Your task to perform on an android device: read, delete, or share a saved page in the chrome app Image 0: 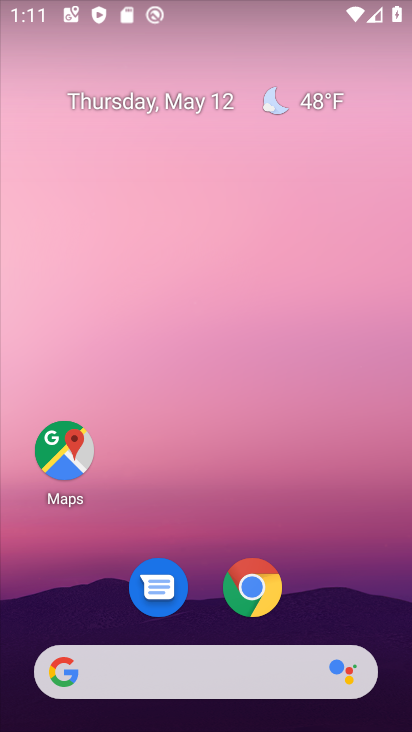
Step 0: drag from (235, 491) to (183, 89)
Your task to perform on an android device: read, delete, or share a saved page in the chrome app Image 1: 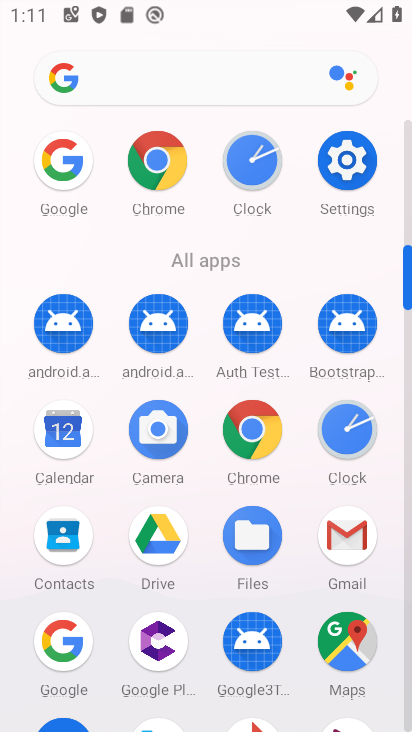
Step 1: click (159, 192)
Your task to perform on an android device: read, delete, or share a saved page in the chrome app Image 2: 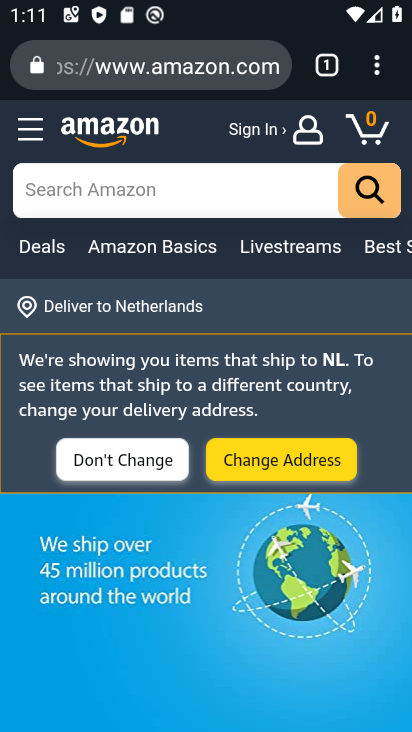
Step 2: click (389, 65)
Your task to perform on an android device: read, delete, or share a saved page in the chrome app Image 3: 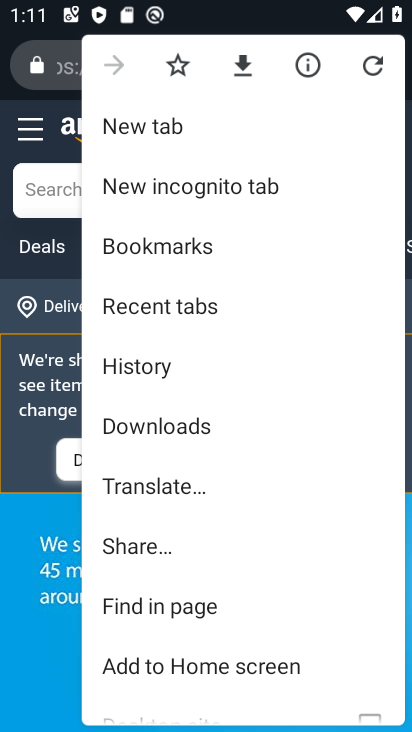
Step 3: click (203, 422)
Your task to perform on an android device: read, delete, or share a saved page in the chrome app Image 4: 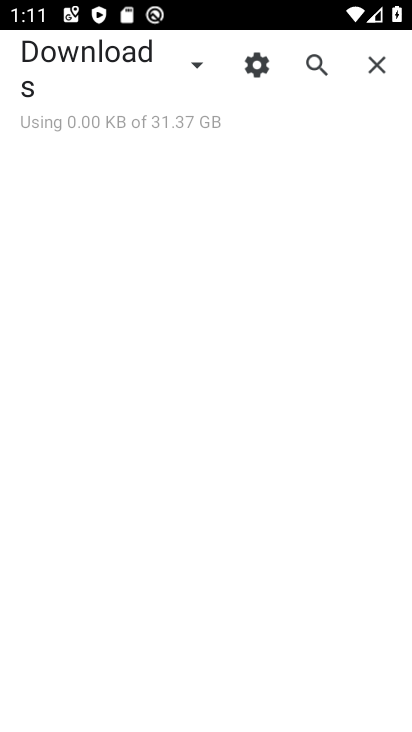
Step 4: click (201, 76)
Your task to perform on an android device: read, delete, or share a saved page in the chrome app Image 5: 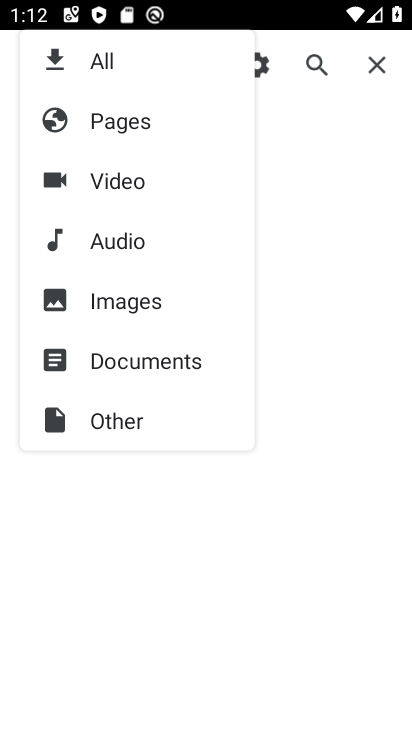
Step 5: click (115, 126)
Your task to perform on an android device: read, delete, or share a saved page in the chrome app Image 6: 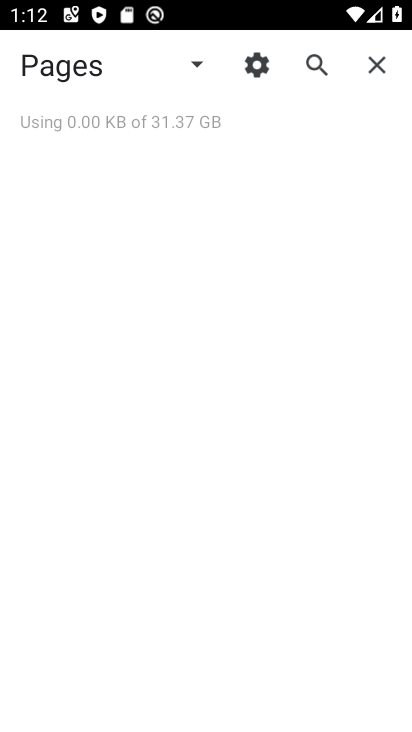
Step 6: task complete